Your task to perform on an android device: Go to wifi settings Image 0: 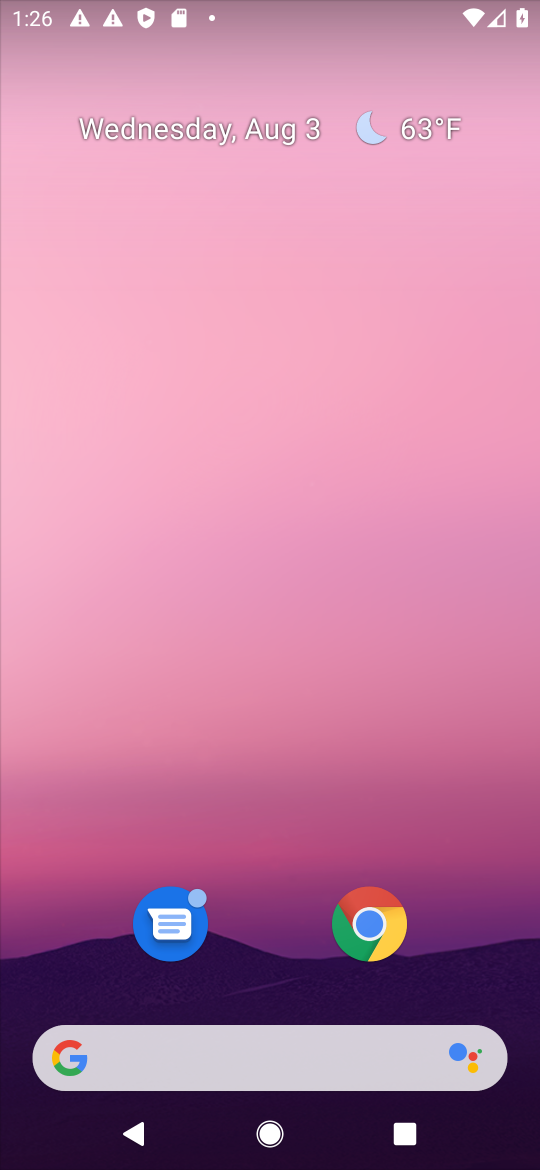
Step 0: press home button
Your task to perform on an android device: Go to wifi settings Image 1: 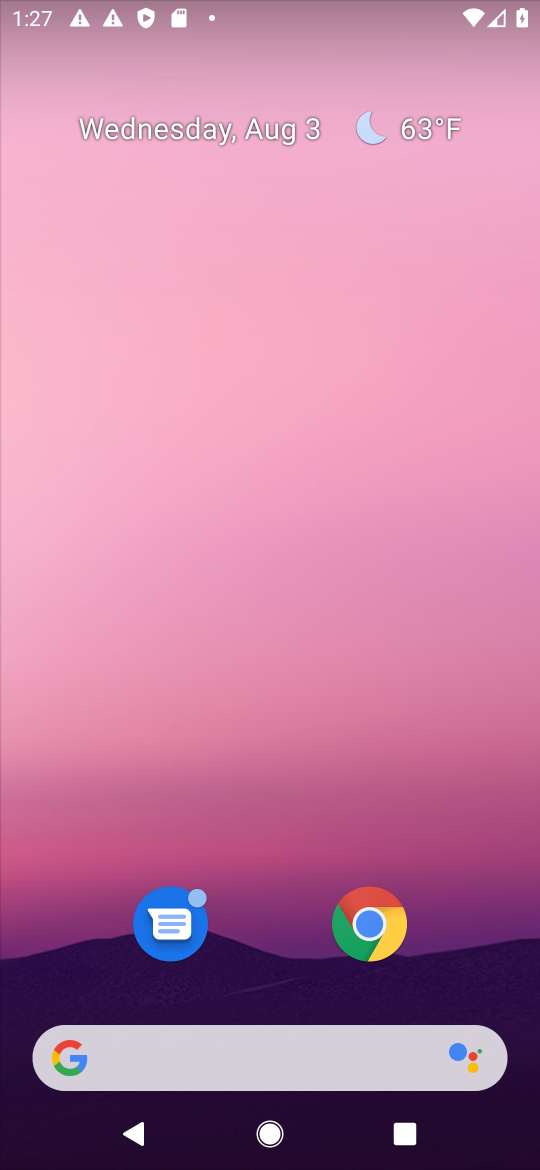
Step 1: drag from (268, 980) to (252, 182)
Your task to perform on an android device: Go to wifi settings Image 2: 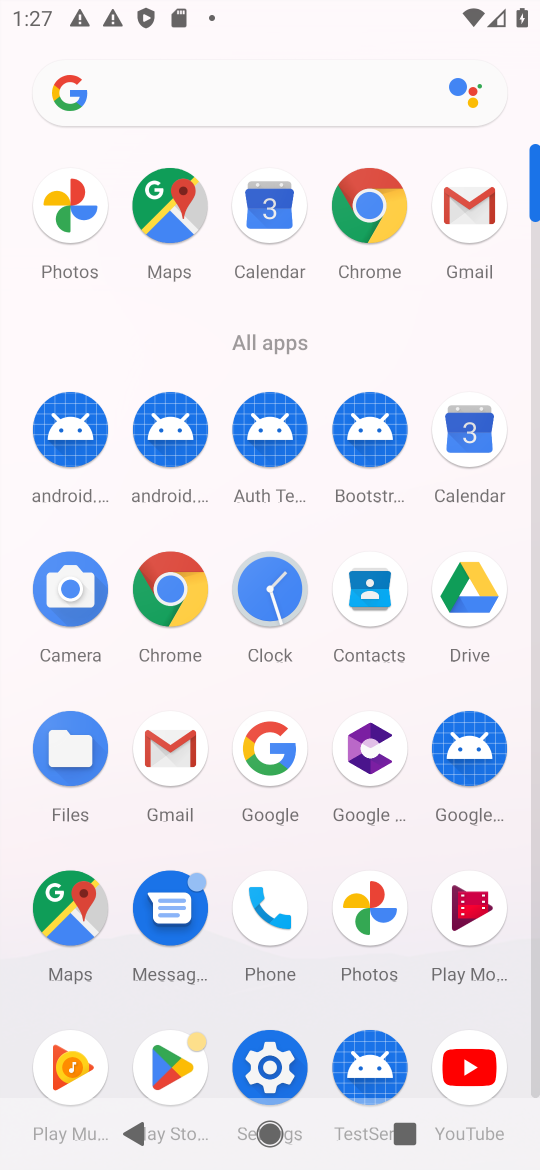
Step 2: click (266, 1051)
Your task to perform on an android device: Go to wifi settings Image 3: 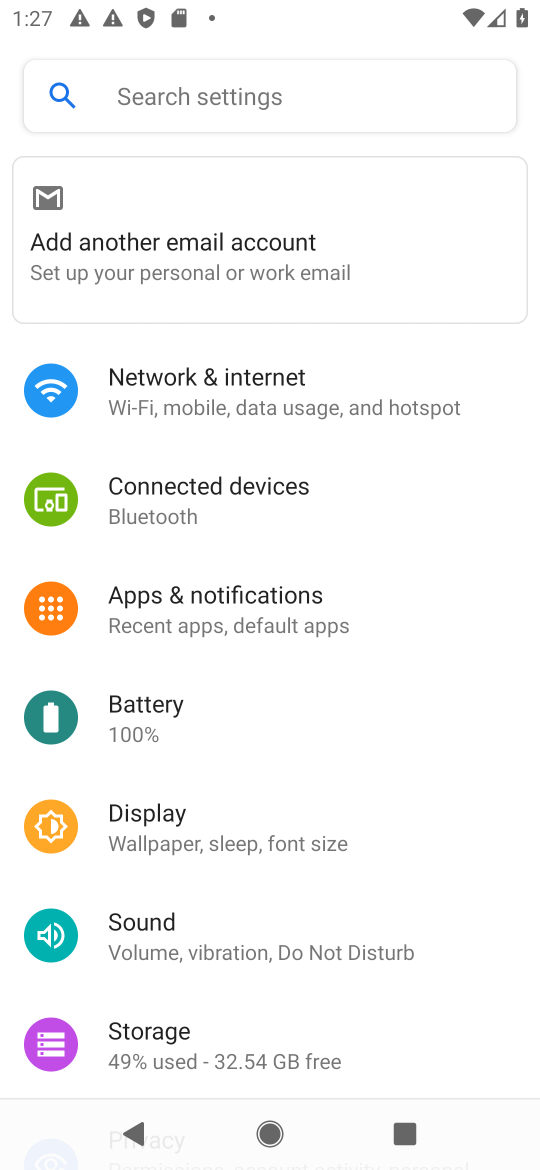
Step 3: click (164, 376)
Your task to perform on an android device: Go to wifi settings Image 4: 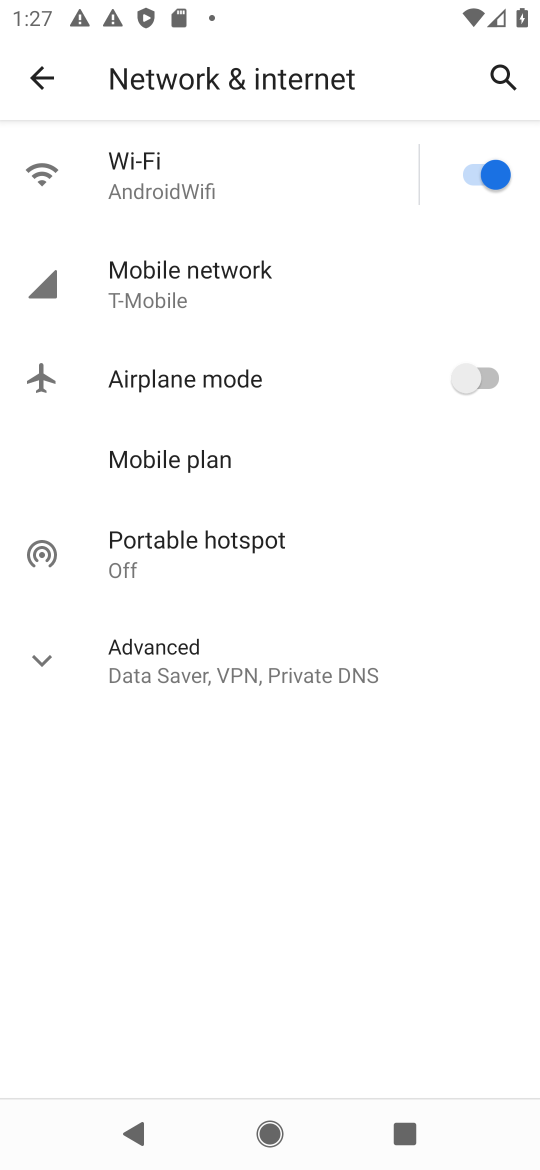
Step 4: click (209, 168)
Your task to perform on an android device: Go to wifi settings Image 5: 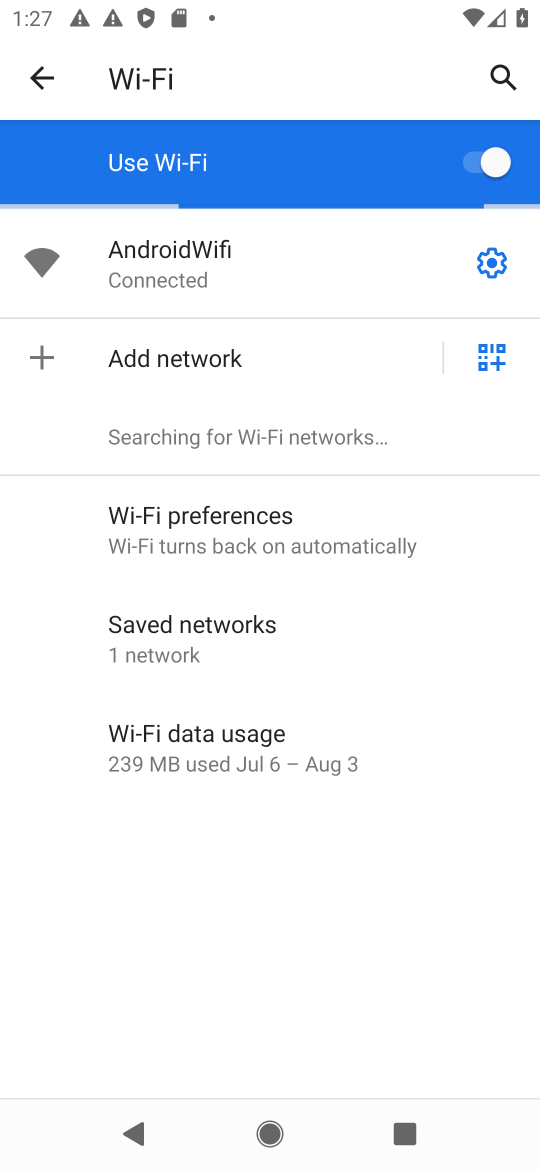
Step 5: task complete